Your task to perform on an android device: Open Google Chrome Image 0: 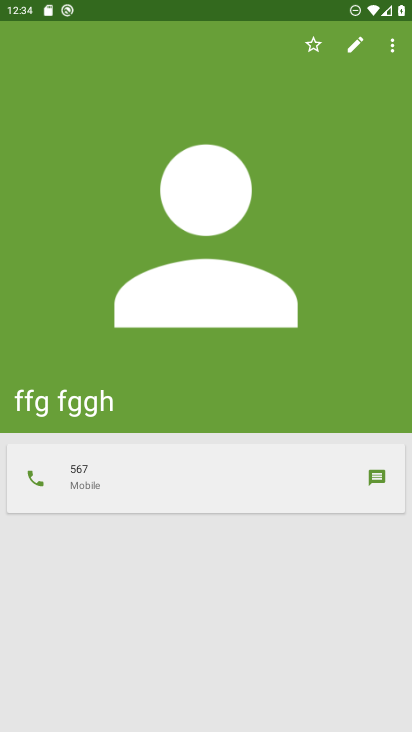
Step 0: press home button
Your task to perform on an android device: Open Google Chrome Image 1: 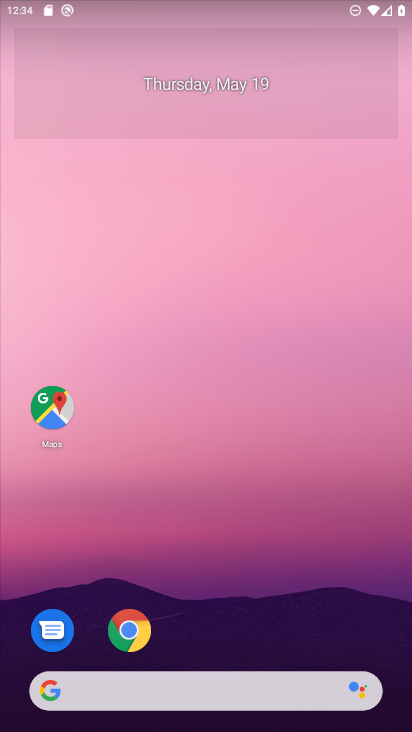
Step 1: click (136, 624)
Your task to perform on an android device: Open Google Chrome Image 2: 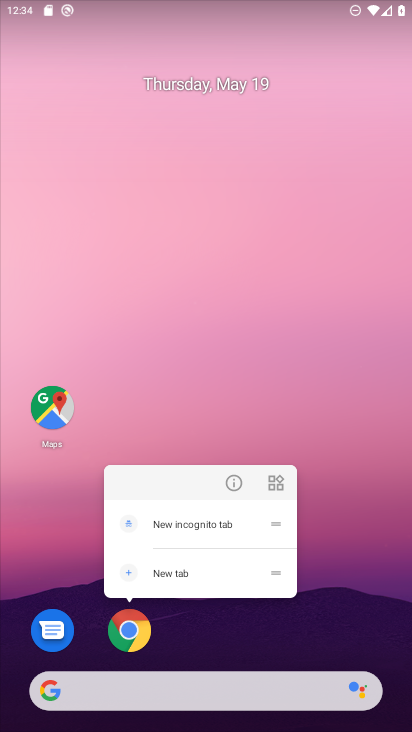
Step 2: click (133, 625)
Your task to perform on an android device: Open Google Chrome Image 3: 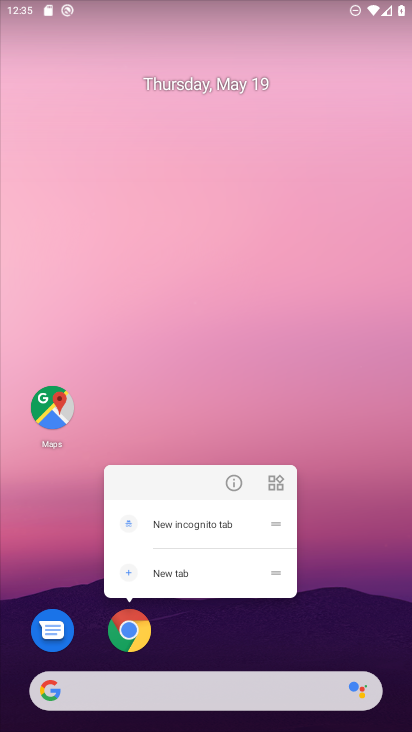
Step 3: click (234, 477)
Your task to perform on an android device: Open Google Chrome Image 4: 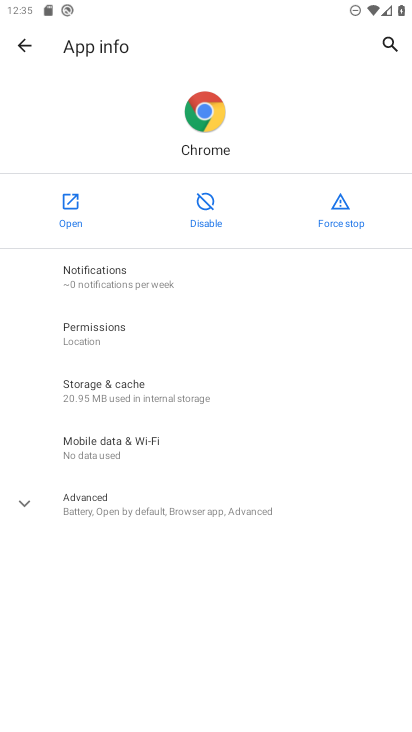
Step 4: click (81, 211)
Your task to perform on an android device: Open Google Chrome Image 5: 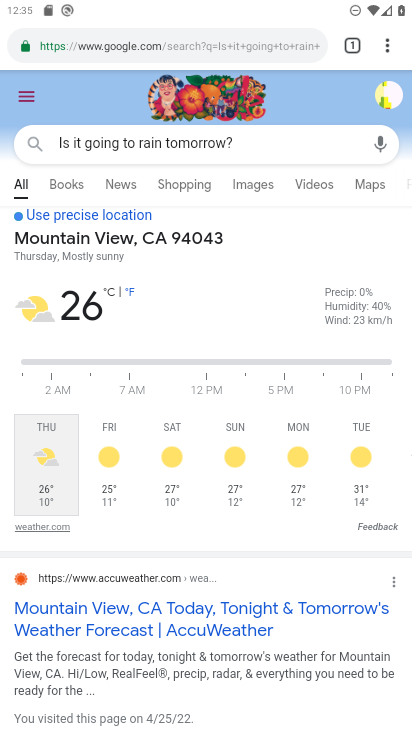
Step 5: task complete